Your task to perform on an android device: change your default location settings in chrome Image 0: 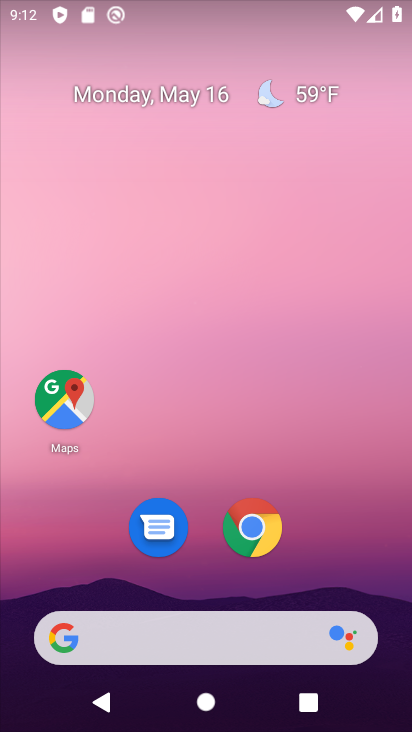
Step 0: click (252, 520)
Your task to perform on an android device: change your default location settings in chrome Image 1: 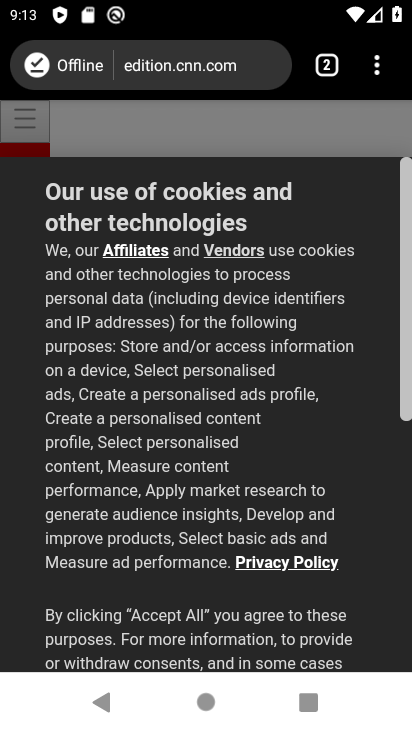
Step 1: click (377, 58)
Your task to perform on an android device: change your default location settings in chrome Image 2: 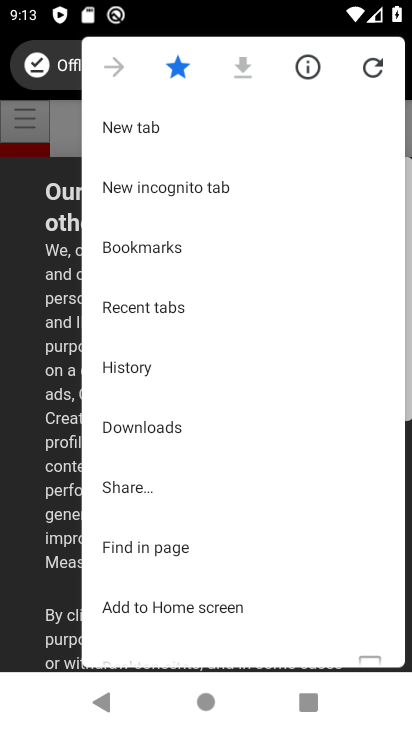
Step 2: drag from (290, 464) to (293, 284)
Your task to perform on an android device: change your default location settings in chrome Image 3: 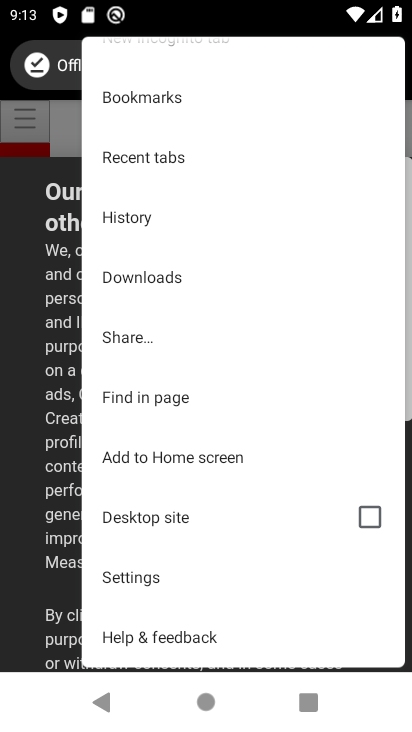
Step 3: click (126, 576)
Your task to perform on an android device: change your default location settings in chrome Image 4: 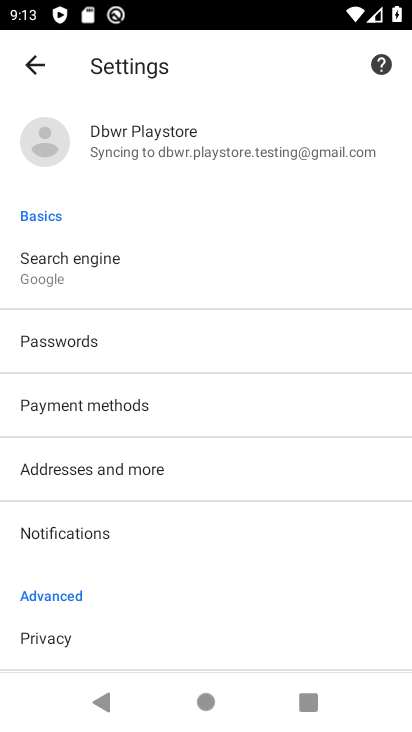
Step 4: drag from (289, 628) to (264, 377)
Your task to perform on an android device: change your default location settings in chrome Image 5: 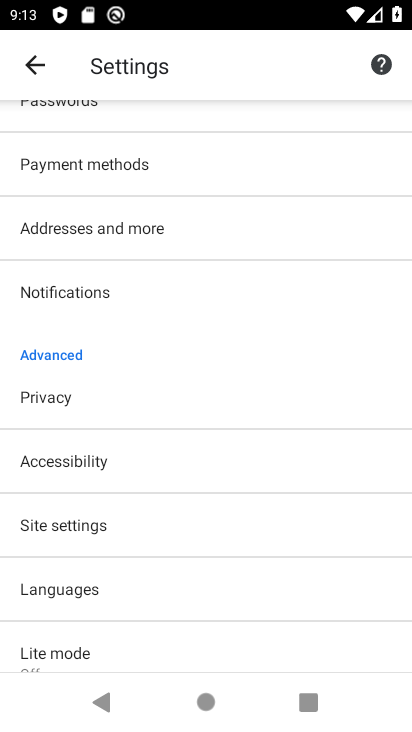
Step 5: click (60, 459)
Your task to perform on an android device: change your default location settings in chrome Image 6: 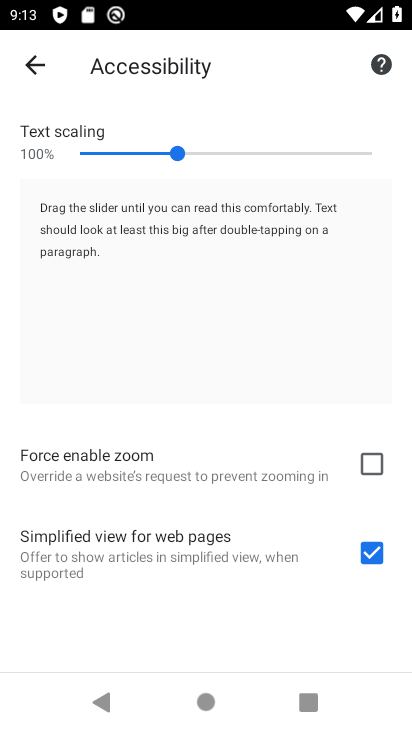
Step 6: click (38, 63)
Your task to perform on an android device: change your default location settings in chrome Image 7: 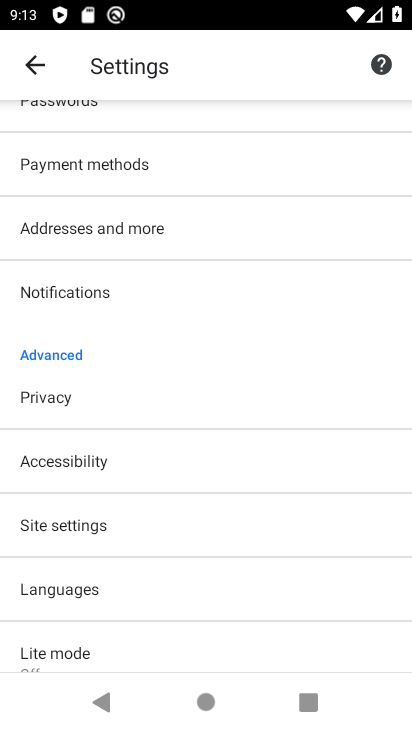
Step 7: click (48, 520)
Your task to perform on an android device: change your default location settings in chrome Image 8: 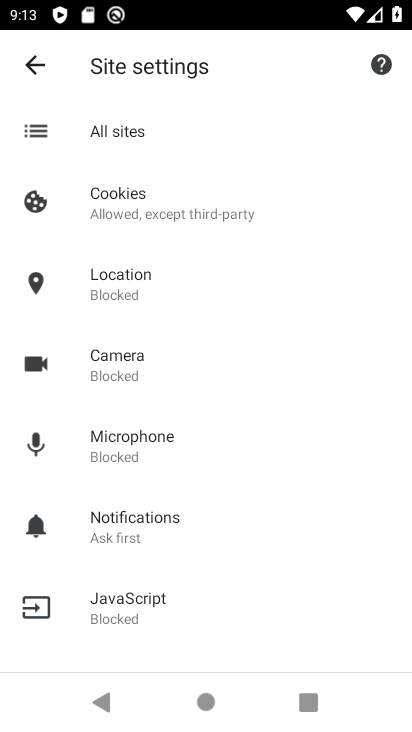
Step 8: drag from (246, 510) to (233, 345)
Your task to perform on an android device: change your default location settings in chrome Image 9: 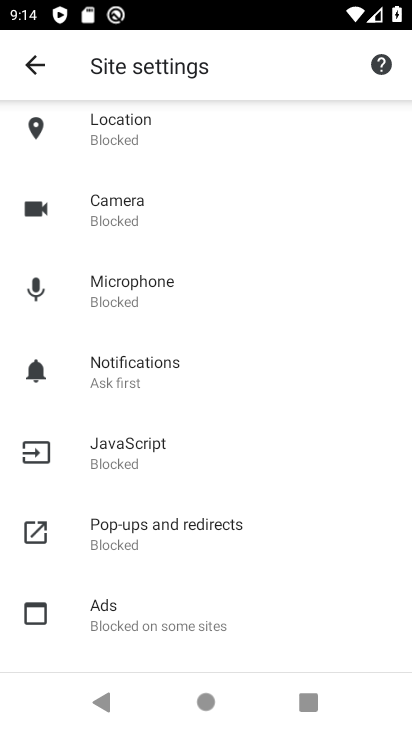
Step 9: drag from (287, 581) to (278, 338)
Your task to perform on an android device: change your default location settings in chrome Image 10: 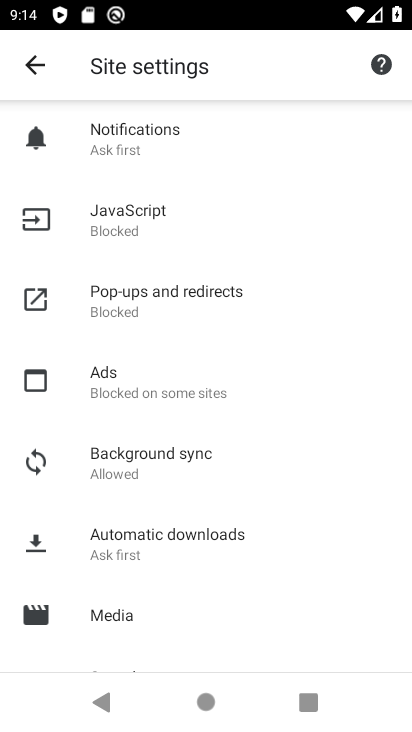
Step 10: drag from (278, 207) to (310, 346)
Your task to perform on an android device: change your default location settings in chrome Image 11: 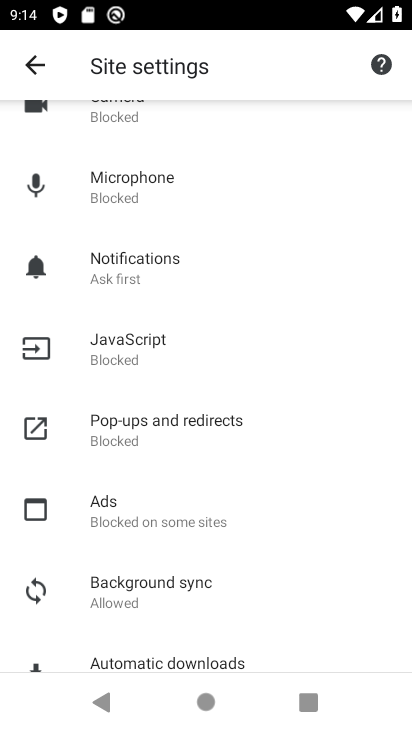
Step 11: drag from (293, 238) to (290, 503)
Your task to perform on an android device: change your default location settings in chrome Image 12: 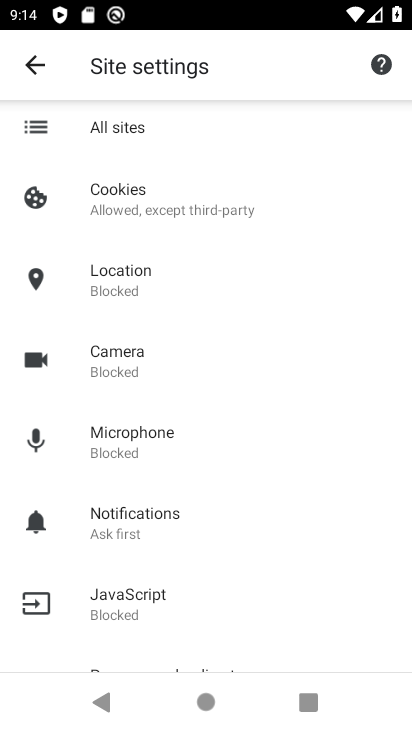
Step 12: click (102, 273)
Your task to perform on an android device: change your default location settings in chrome Image 13: 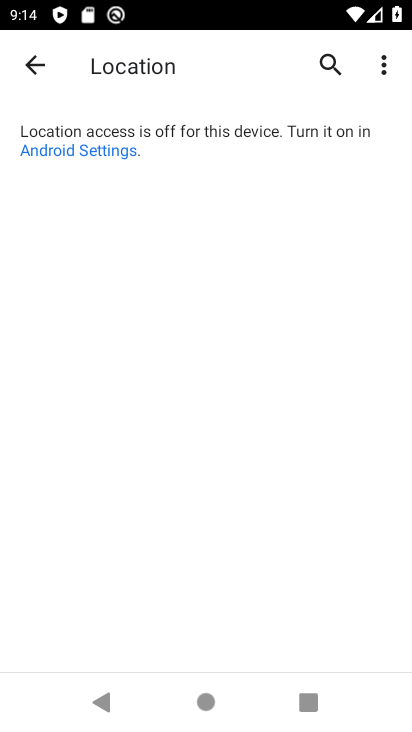
Step 13: task complete